Your task to perform on an android device: View the shopping cart on ebay.com. Search for asus zenbook on ebay.com, select the first entry, add it to the cart, then select checkout. Image 0: 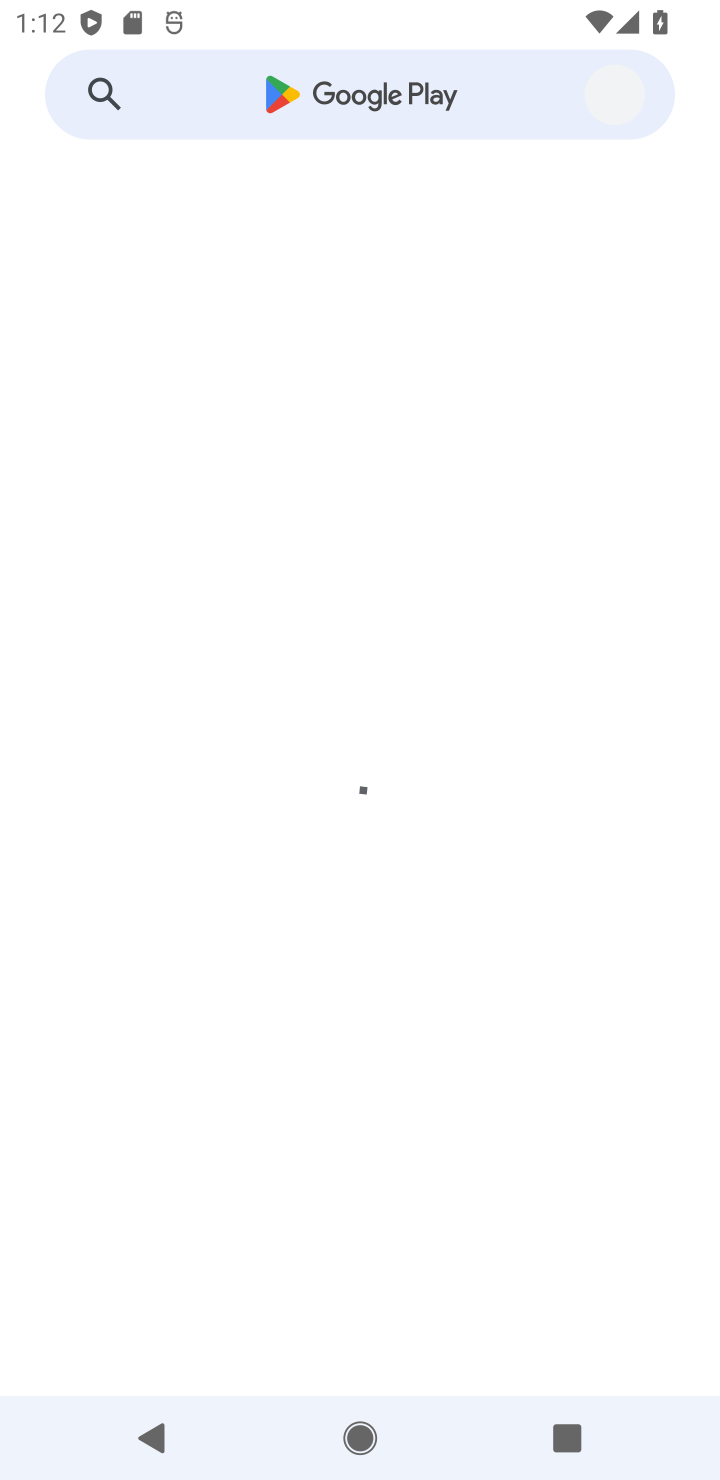
Step 0: press home button
Your task to perform on an android device: View the shopping cart on ebay.com. Search for asus zenbook on ebay.com, select the first entry, add it to the cart, then select checkout. Image 1: 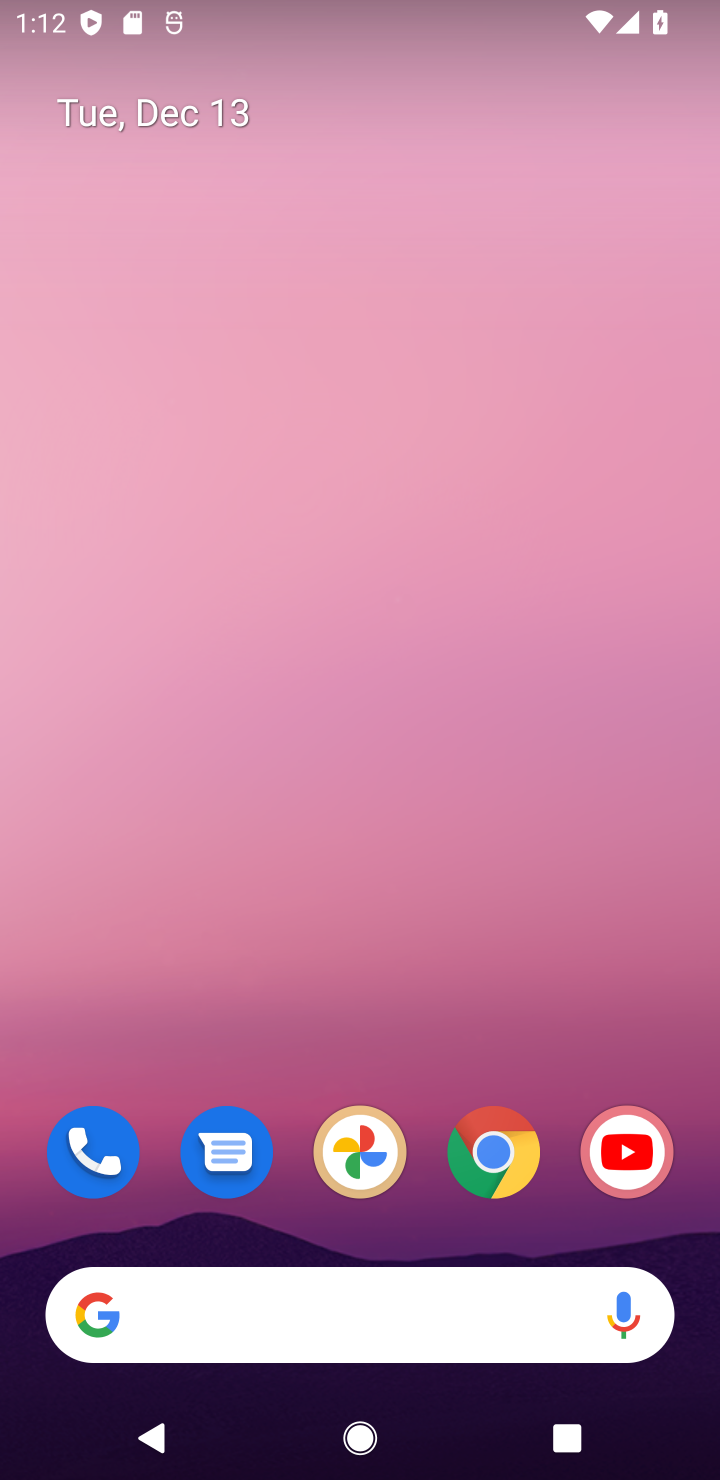
Step 1: drag from (424, 1284) to (424, 325)
Your task to perform on an android device: View the shopping cart on ebay.com. Search for asus zenbook on ebay.com, select the first entry, add it to the cart, then select checkout. Image 2: 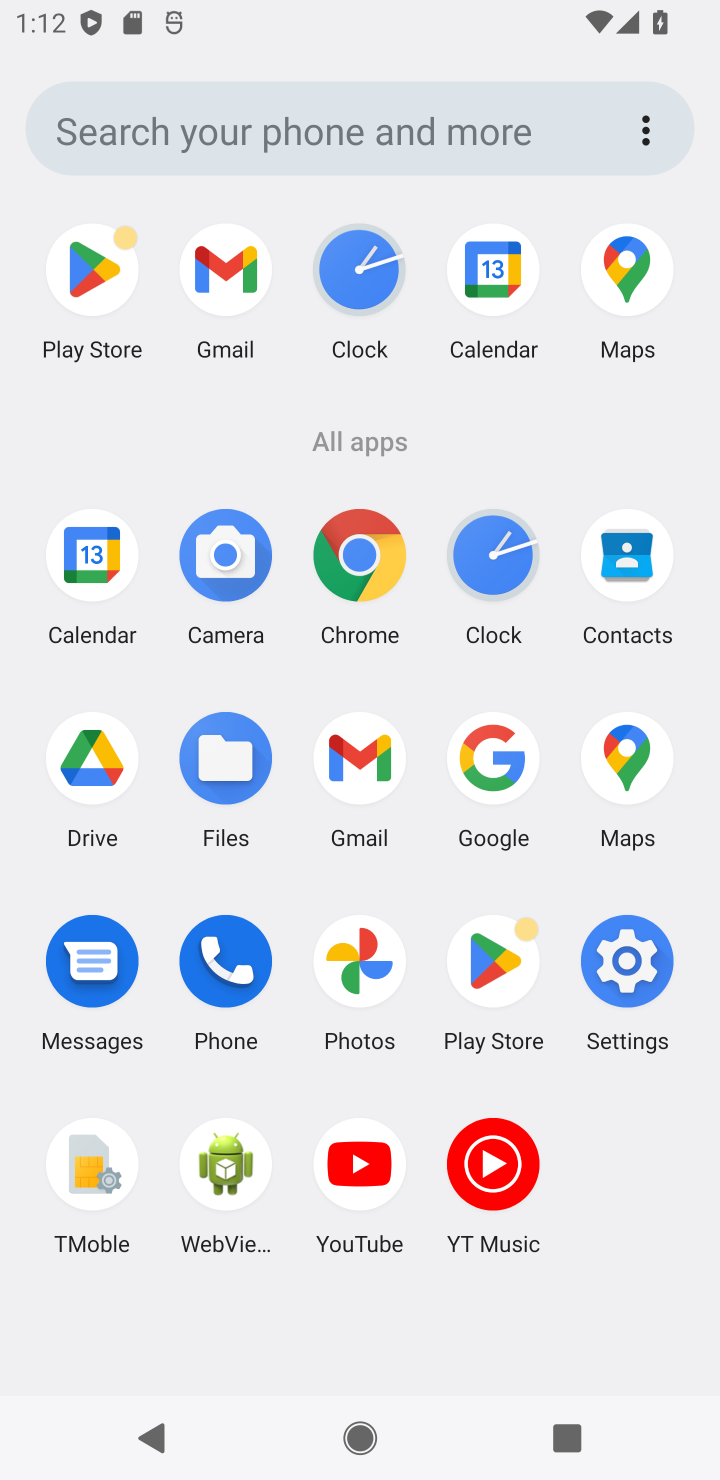
Step 2: click (473, 766)
Your task to perform on an android device: View the shopping cart on ebay.com. Search for asus zenbook on ebay.com, select the first entry, add it to the cart, then select checkout. Image 3: 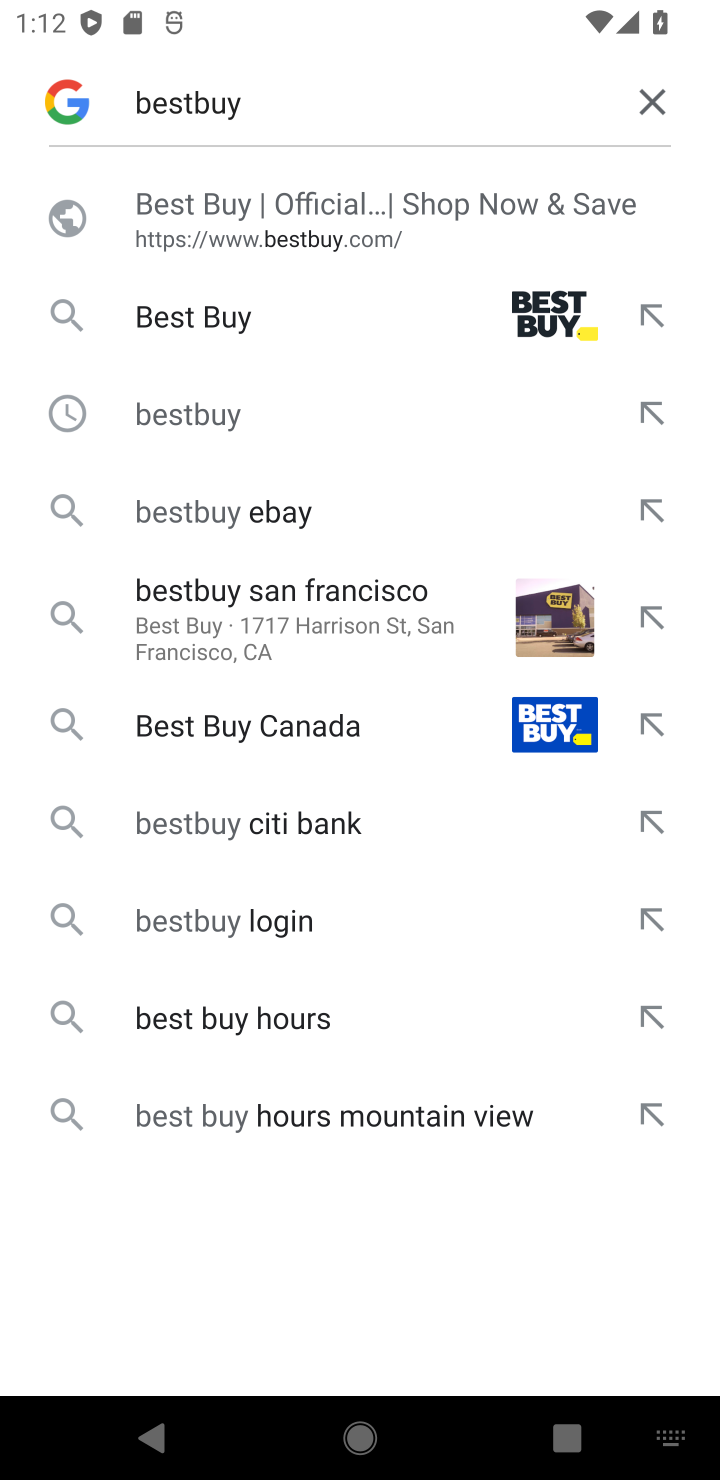
Step 3: click (648, 122)
Your task to perform on an android device: View the shopping cart on ebay.com. Search for asus zenbook on ebay.com, select the first entry, add it to the cart, then select checkout. Image 4: 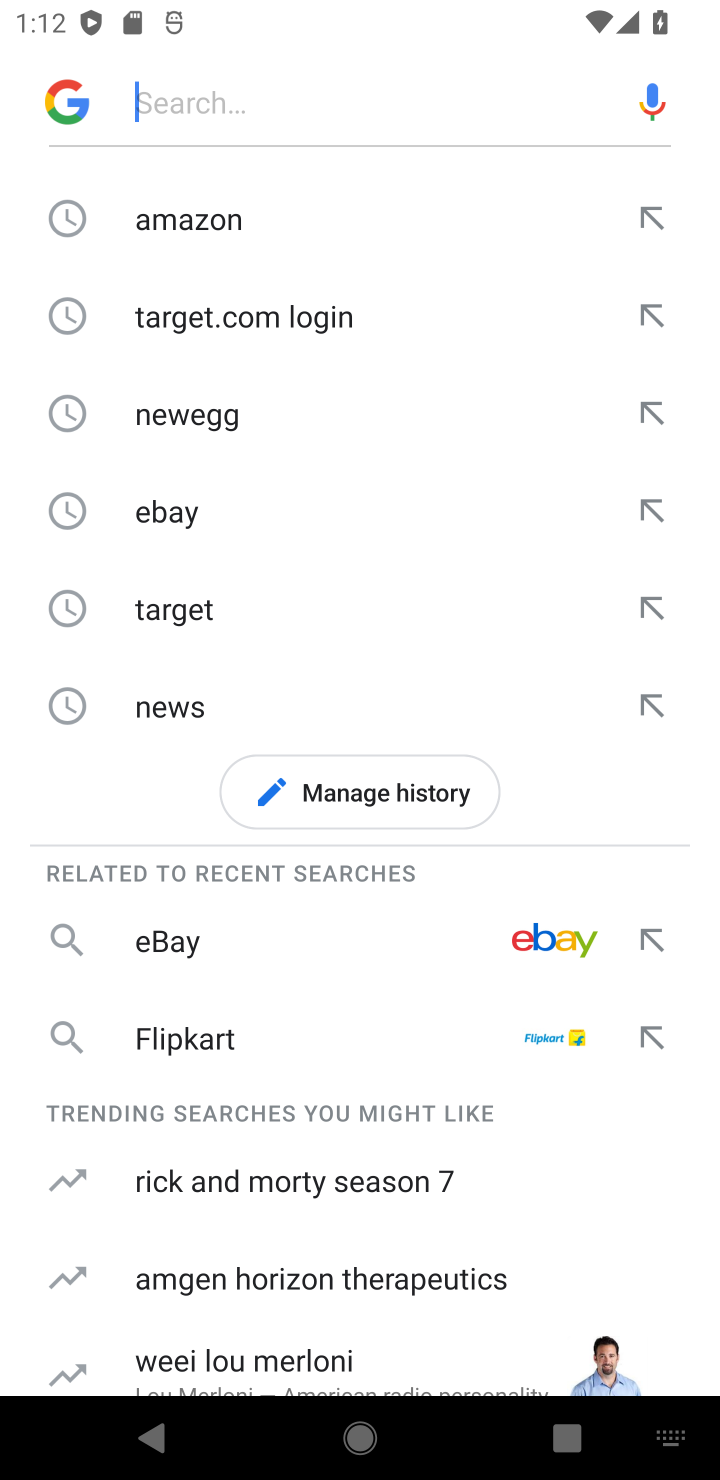
Step 4: click (152, 514)
Your task to perform on an android device: View the shopping cart on ebay.com. Search for asus zenbook on ebay.com, select the first entry, add it to the cart, then select checkout. Image 5: 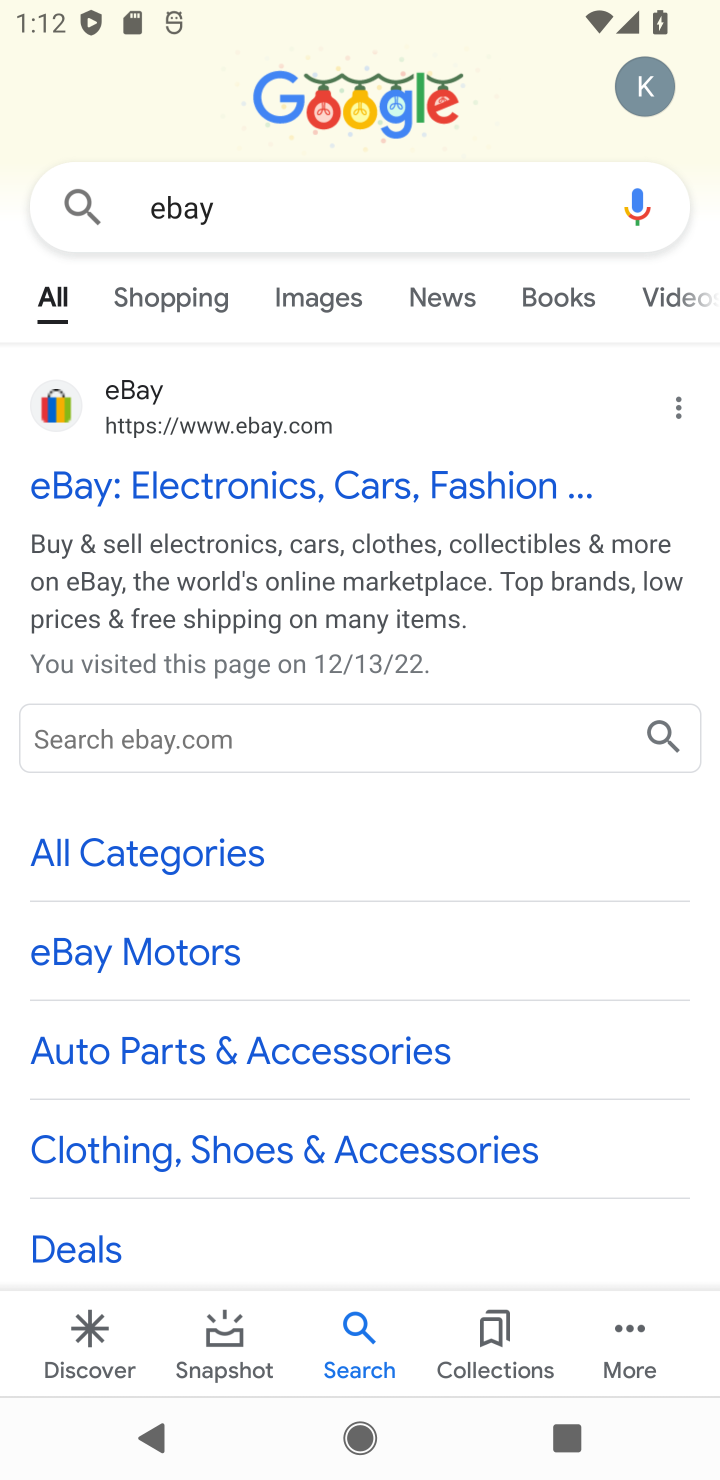
Step 5: click (266, 492)
Your task to perform on an android device: View the shopping cart on ebay.com. Search for asus zenbook on ebay.com, select the first entry, add it to the cart, then select checkout. Image 6: 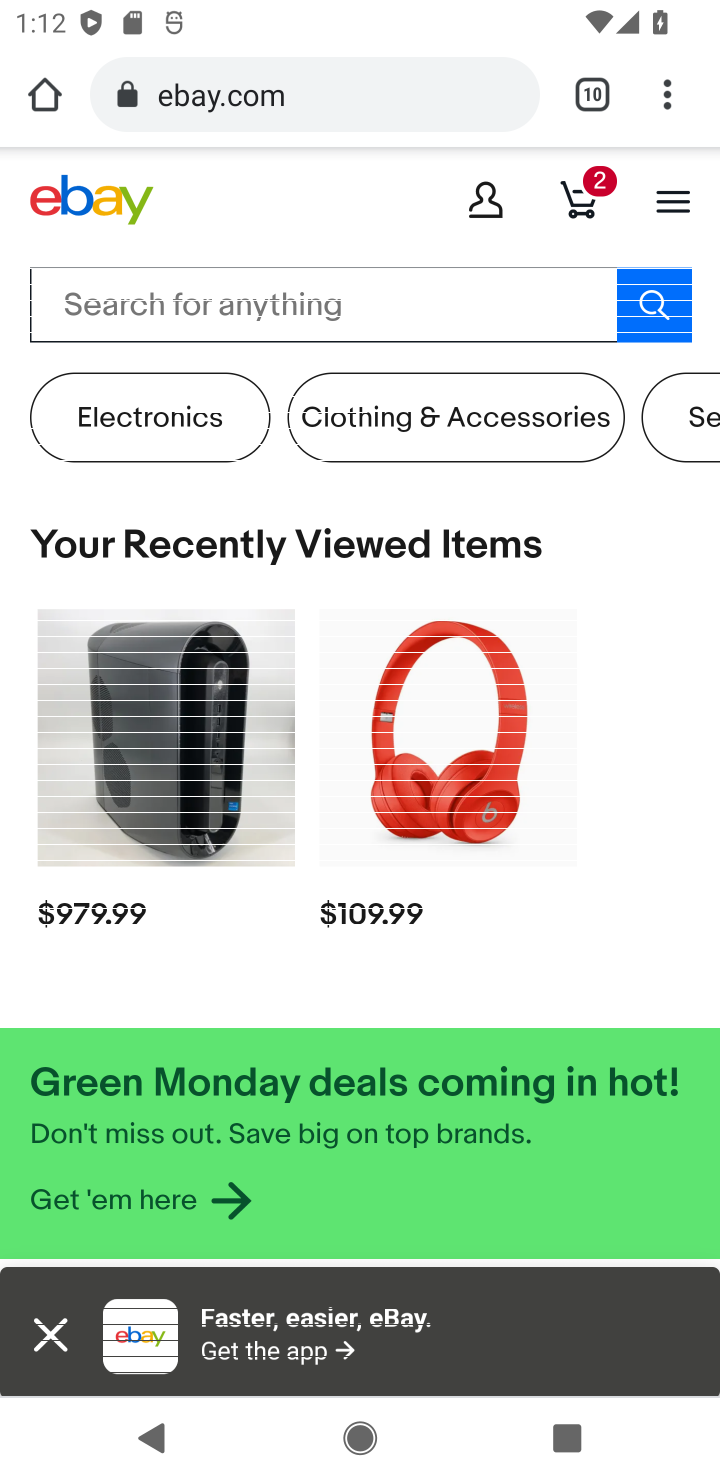
Step 6: click (579, 186)
Your task to perform on an android device: View the shopping cart on ebay.com. Search for asus zenbook on ebay.com, select the first entry, add it to the cart, then select checkout. Image 7: 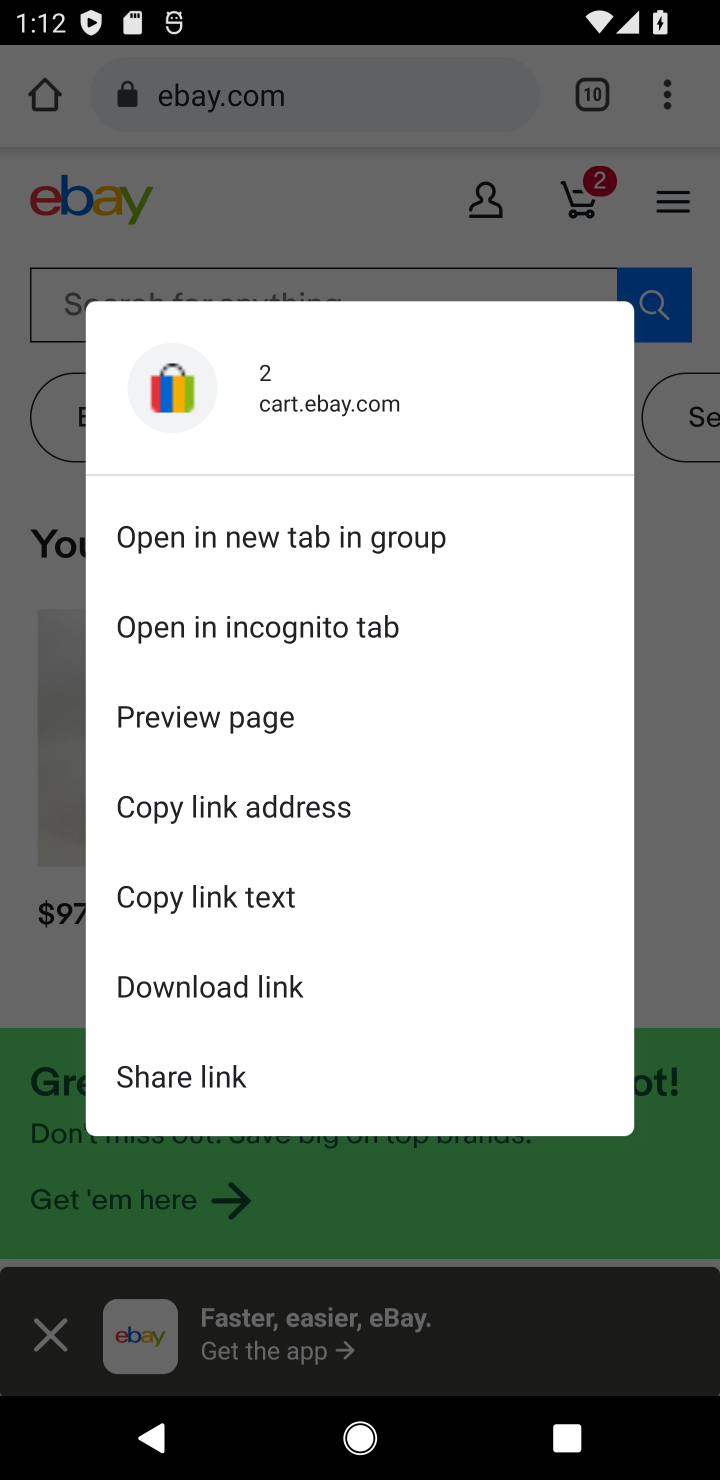
Step 7: click (644, 617)
Your task to perform on an android device: View the shopping cart on ebay.com. Search for asus zenbook on ebay.com, select the first entry, add it to the cart, then select checkout. Image 8: 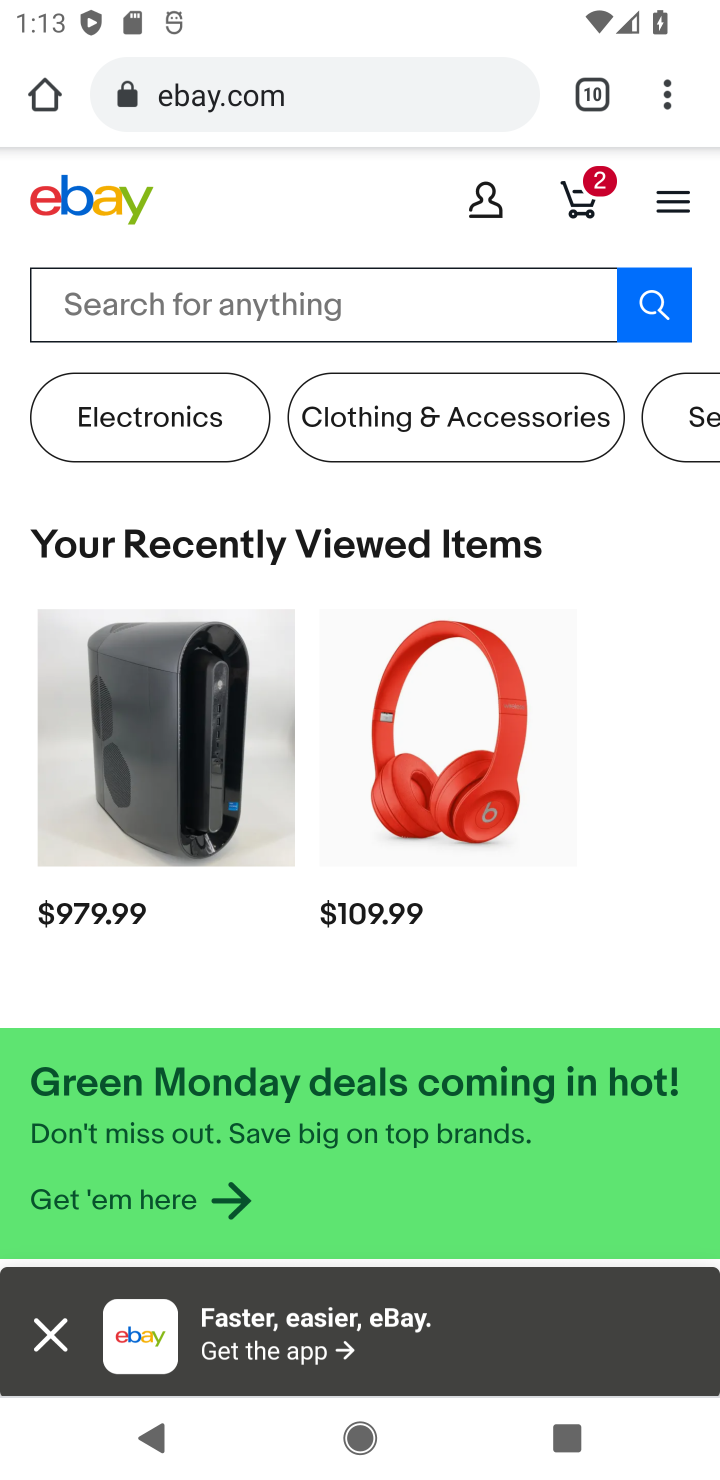
Step 8: click (175, 289)
Your task to perform on an android device: View the shopping cart on ebay.com. Search for asus zenbook on ebay.com, select the first entry, add it to the cart, then select checkout. Image 9: 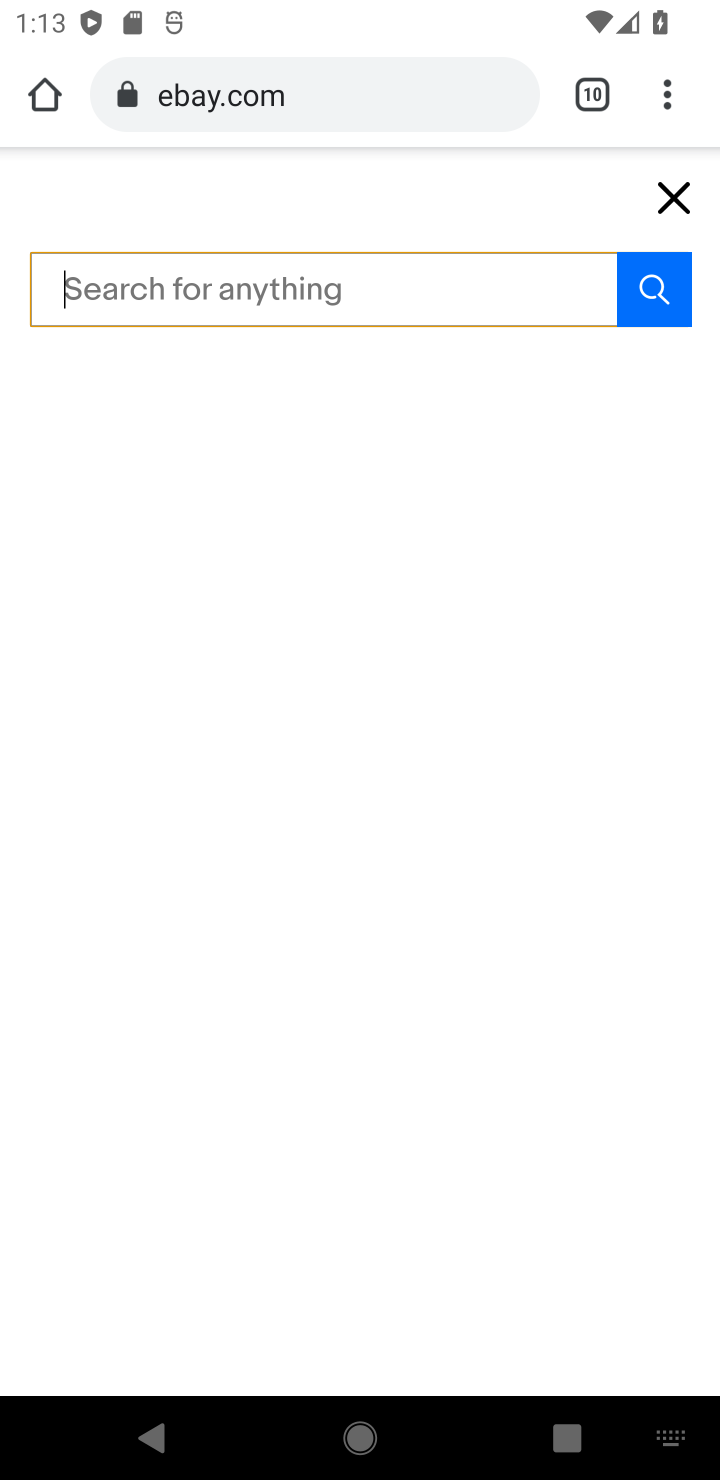
Step 9: type "asus zenbook"
Your task to perform on an android device: View the shopping cart on ebay.com. Search for asus zenbook on ebay.com, select the first entry, add it to the cart, then select checkout. Image 10: 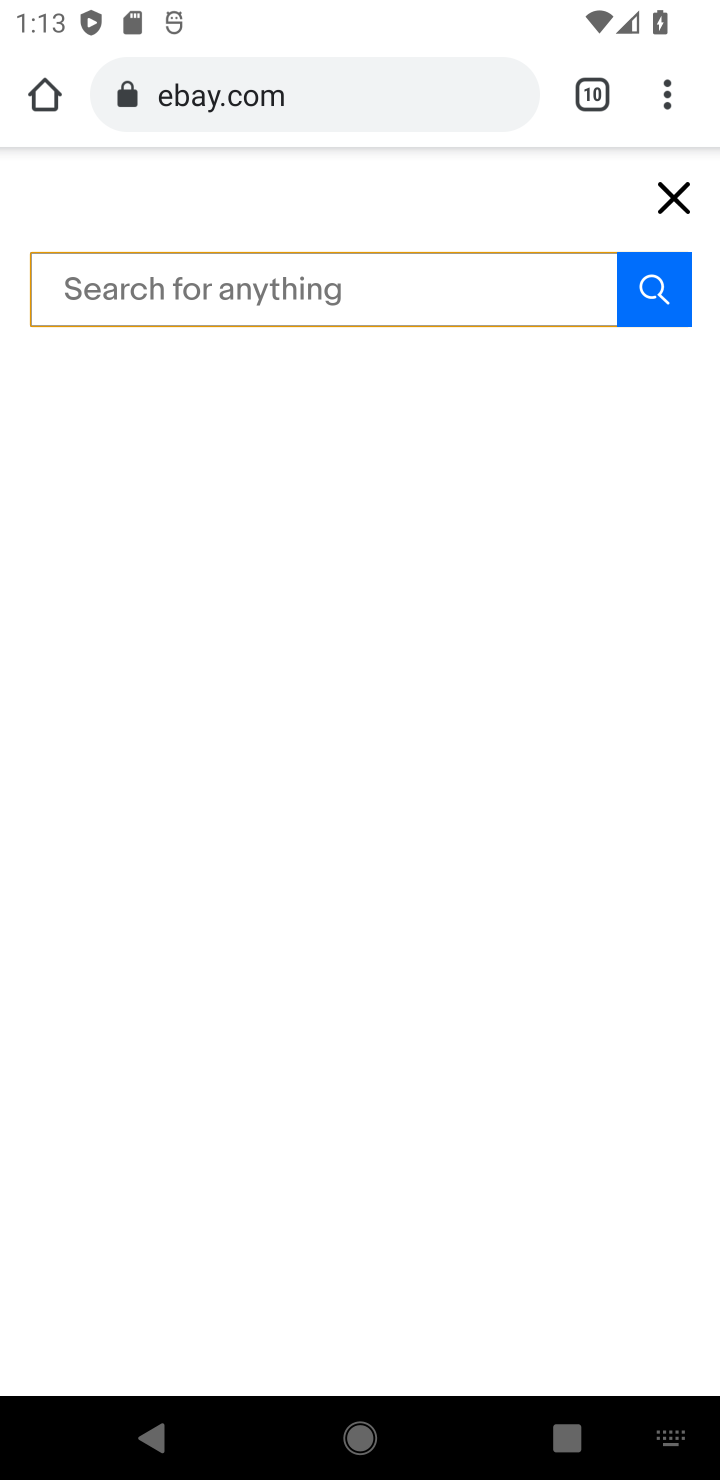
Step 10: click (624, 270)
Your task to perform on an android device: View the shopping cart on ebay.com. Search for asus zenbook on ebay.com, select the first entry, add it to the cart, then select checkout. Image 11: 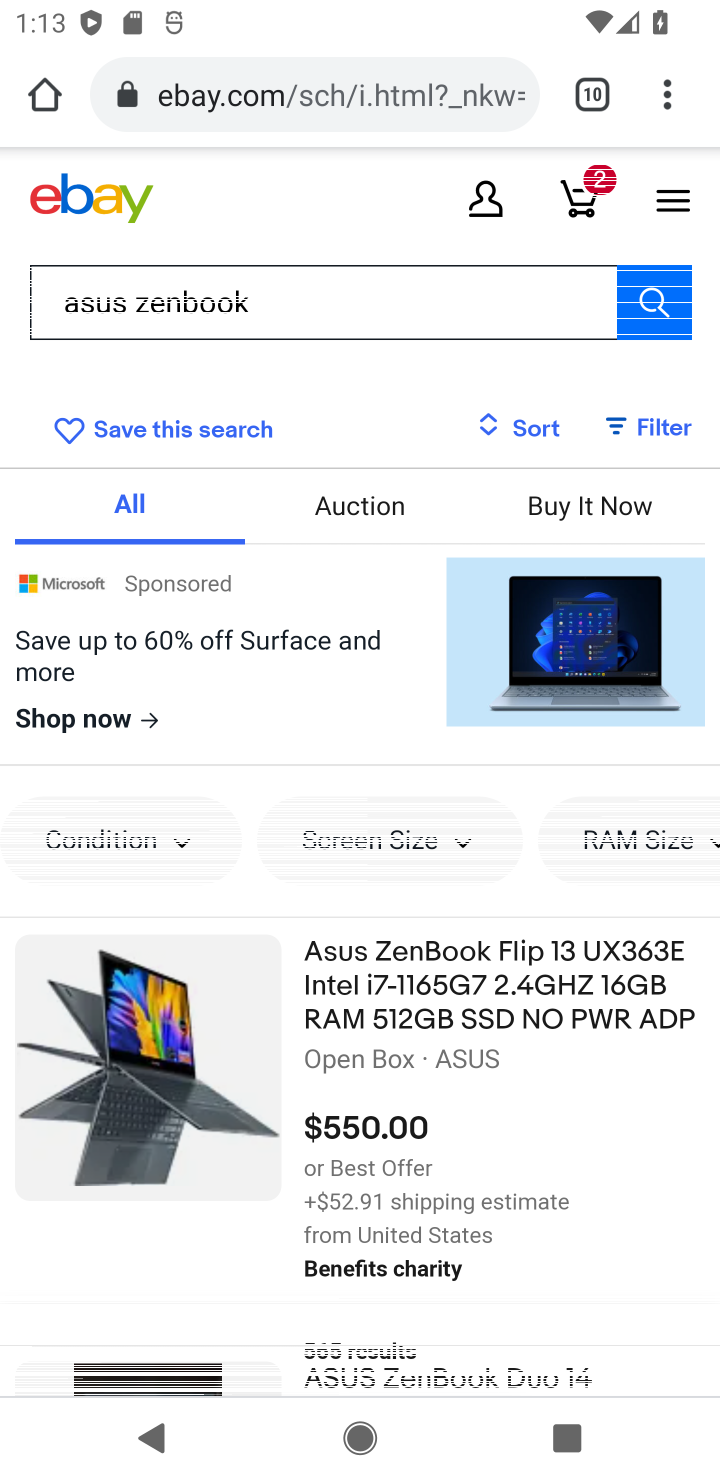
Step 11: drag from (529, 1254) to (490, 471)
Your task to perform on an android device: View the shopping cart on ebay.com. Search for asus zenbook on ebay.com, select the first entry, add it to the cart, then select checkout. Image 12: 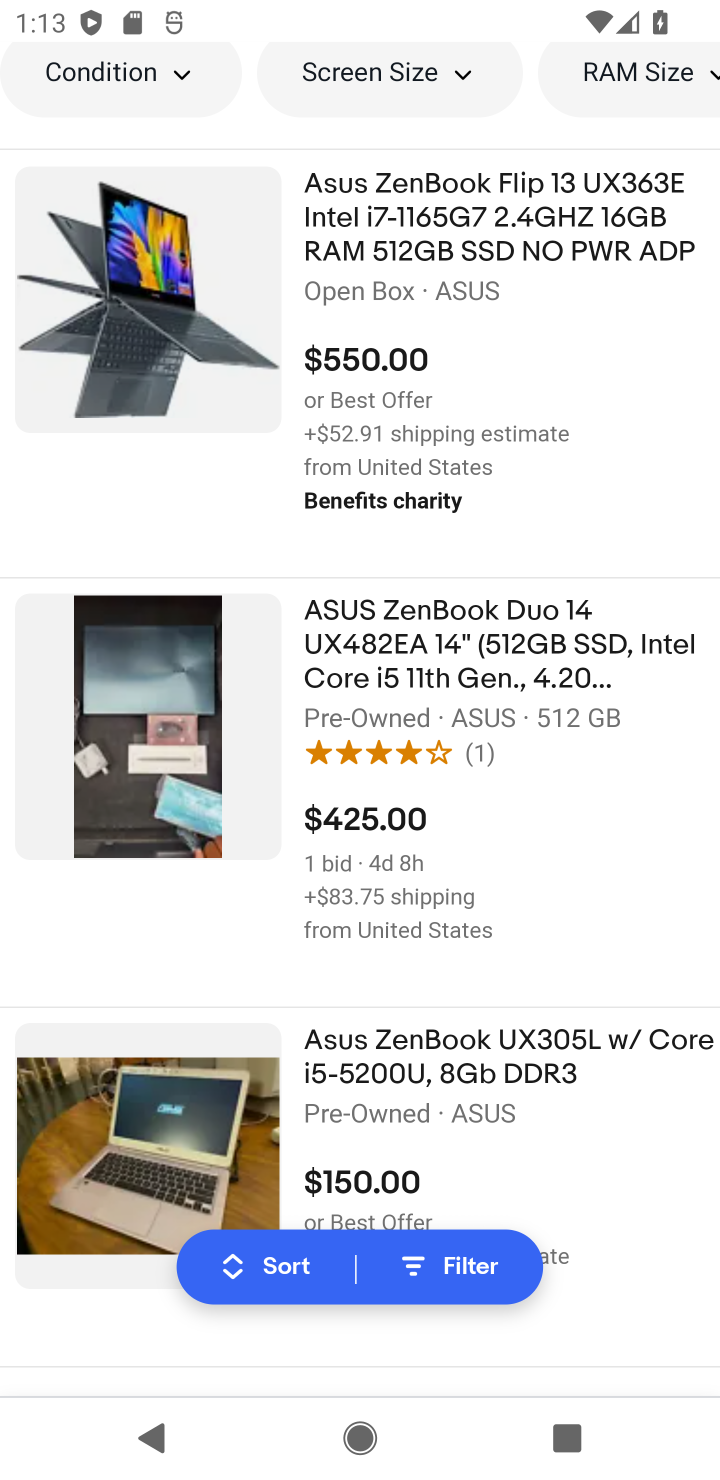
Step 12: click (400, 202)
Your task to perform on an android device: View the shopping cart on ebay.com. Search for asus zenbook on ebay.com, select the first entry, add it to the cart, then select checkout. Image 13: 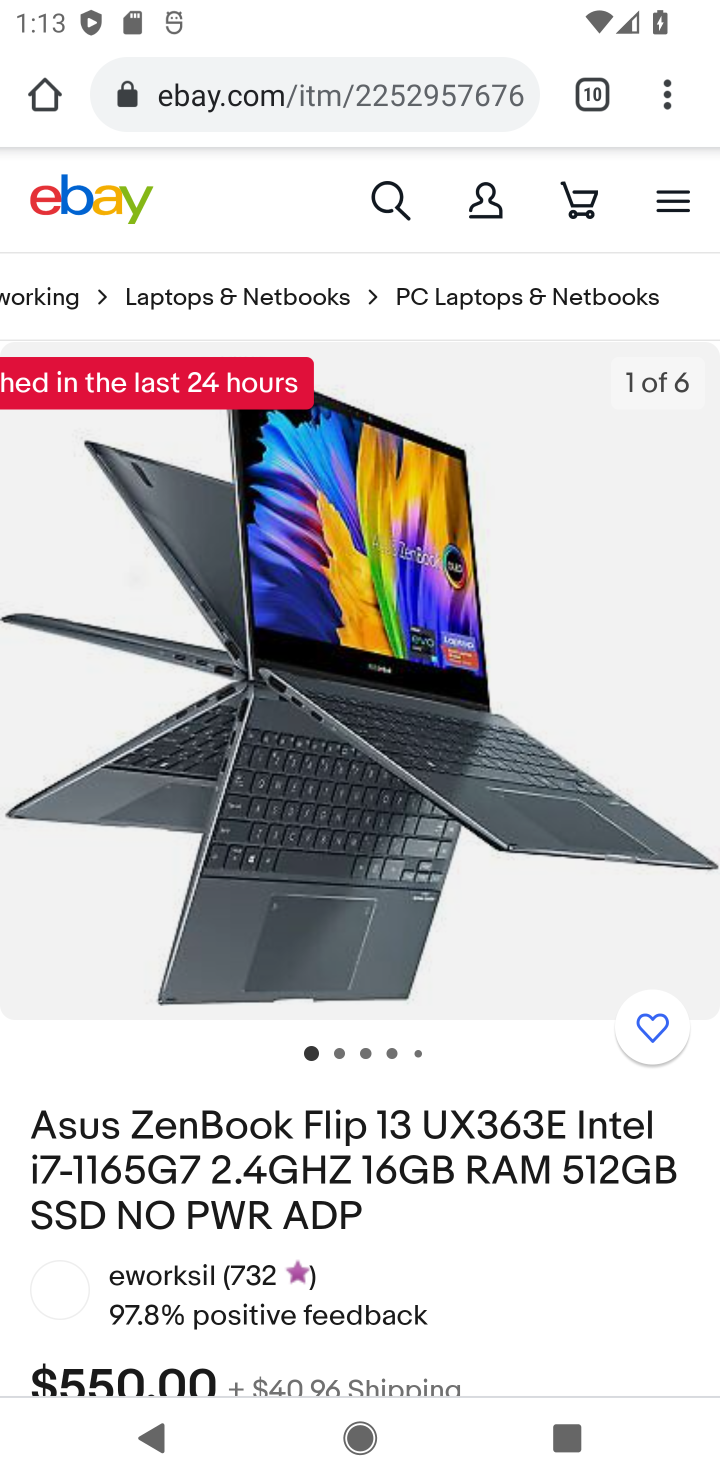
Step 13: drag from (611, 1046) to (616, 341)
Your task to perform on an android device: View the shopping cart on ebay.com. Search for asus zenbook on ebay.com, select the first entry, add it to the cart, then select checkout. Image 14: 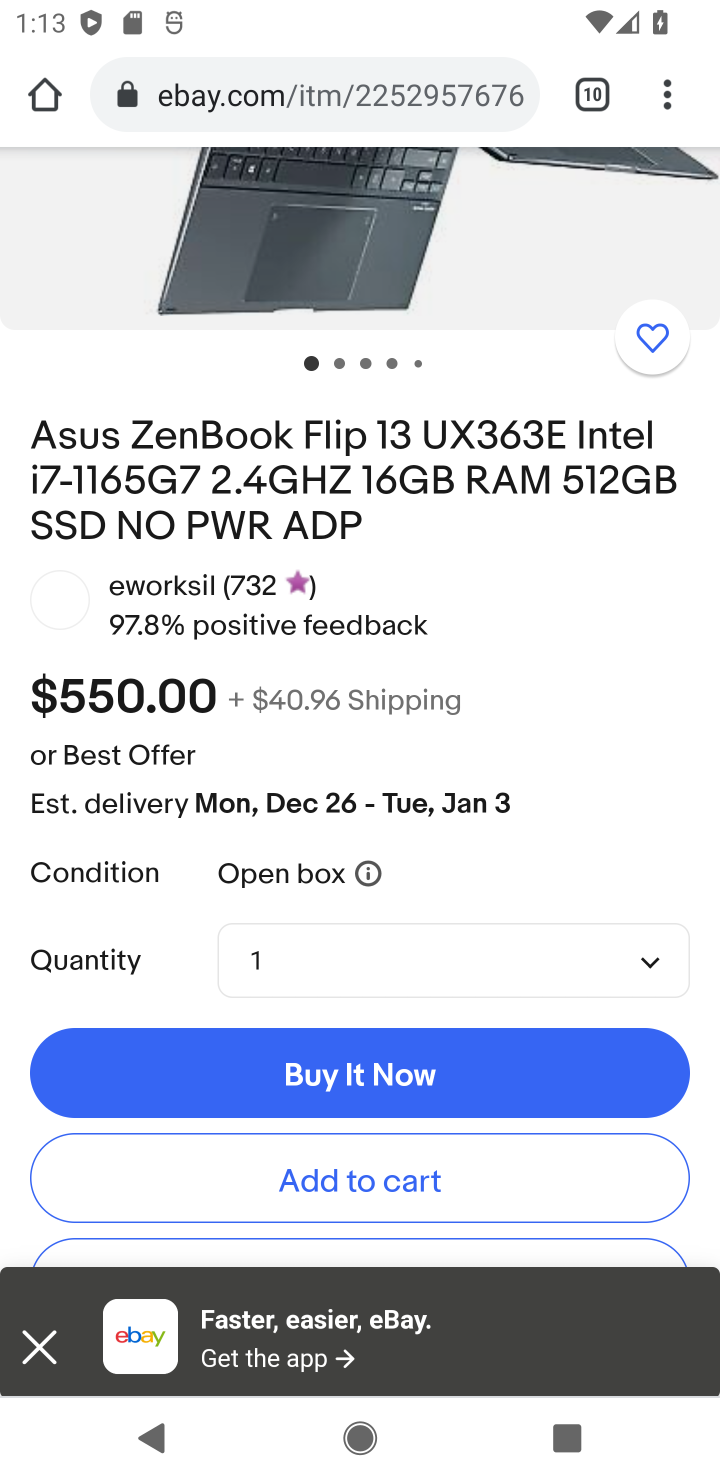
Step 14: click (353, 1172)
Your task to perform on an android device: View the shopping cart on ebay.com. Search for asus zenbook on ebay.com, select the first entry, add it to the cart, then select checkout. Image 15: 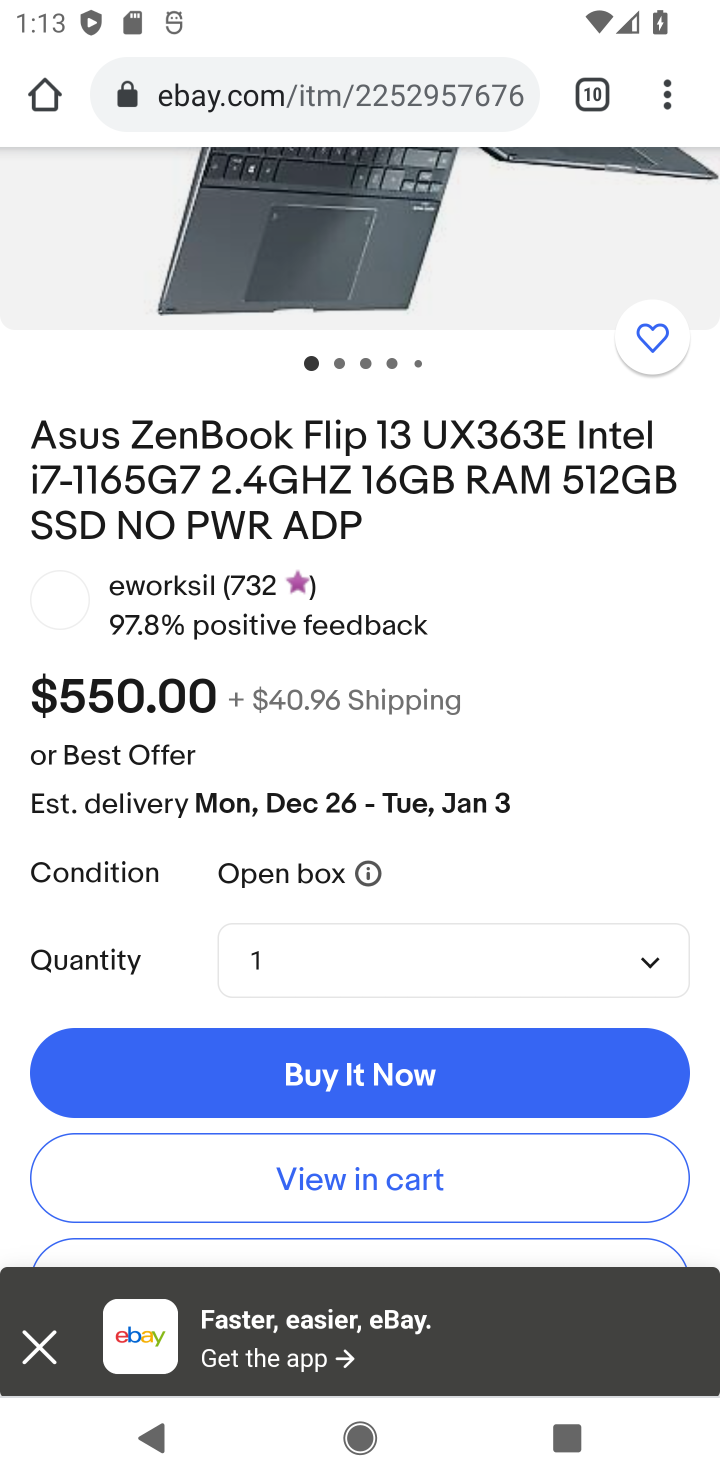
Step 15: click (353, 1172)
Your task to perform on an android device: View the shopping cart on ebay.com. Search for asus zenbook on ebay.com, select the first entry, add it to the cart, then select checkout. Image 16: 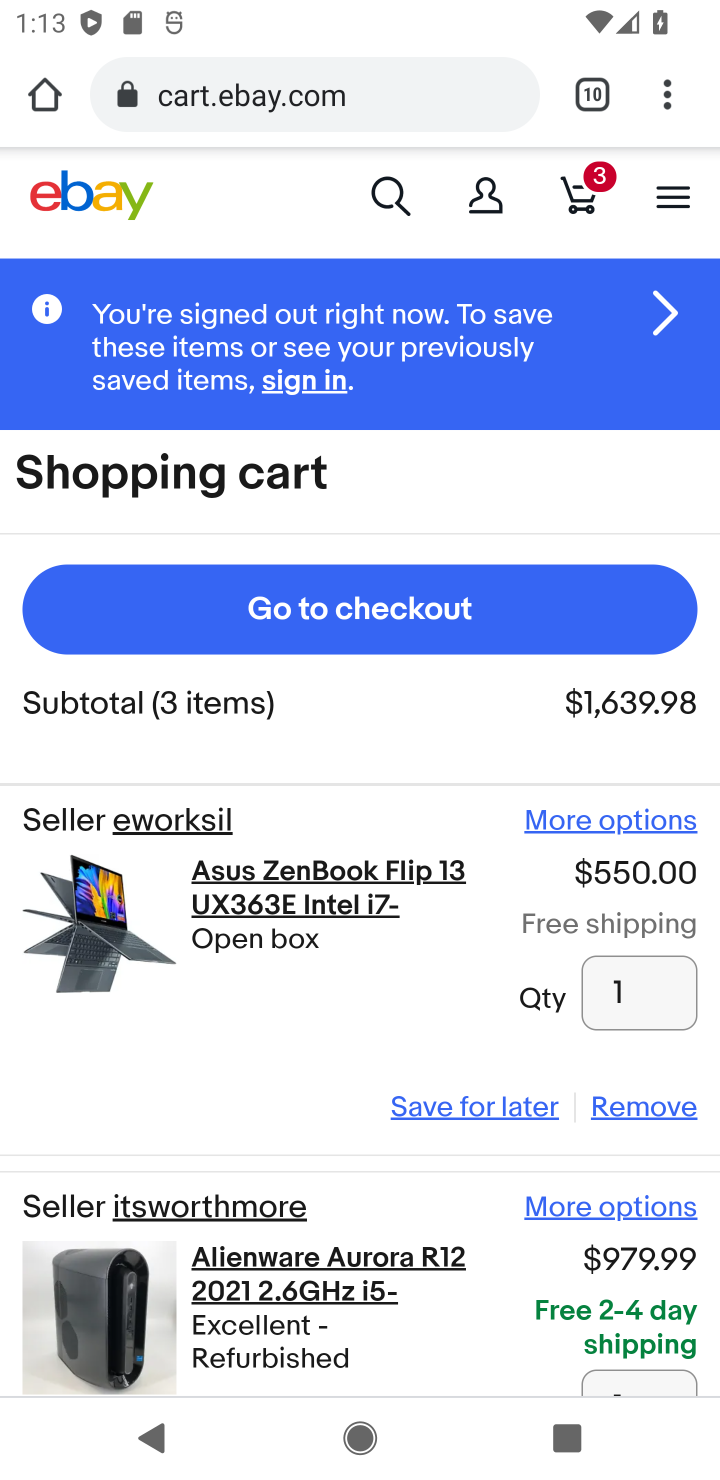
Step 16: click (351, 610)
Your task to perform on an android device: View the shopping cart on ebay.com. Search for asus zenbook on ebay.com, select the first entry, add it to the cart, then select checkout. Image 17: 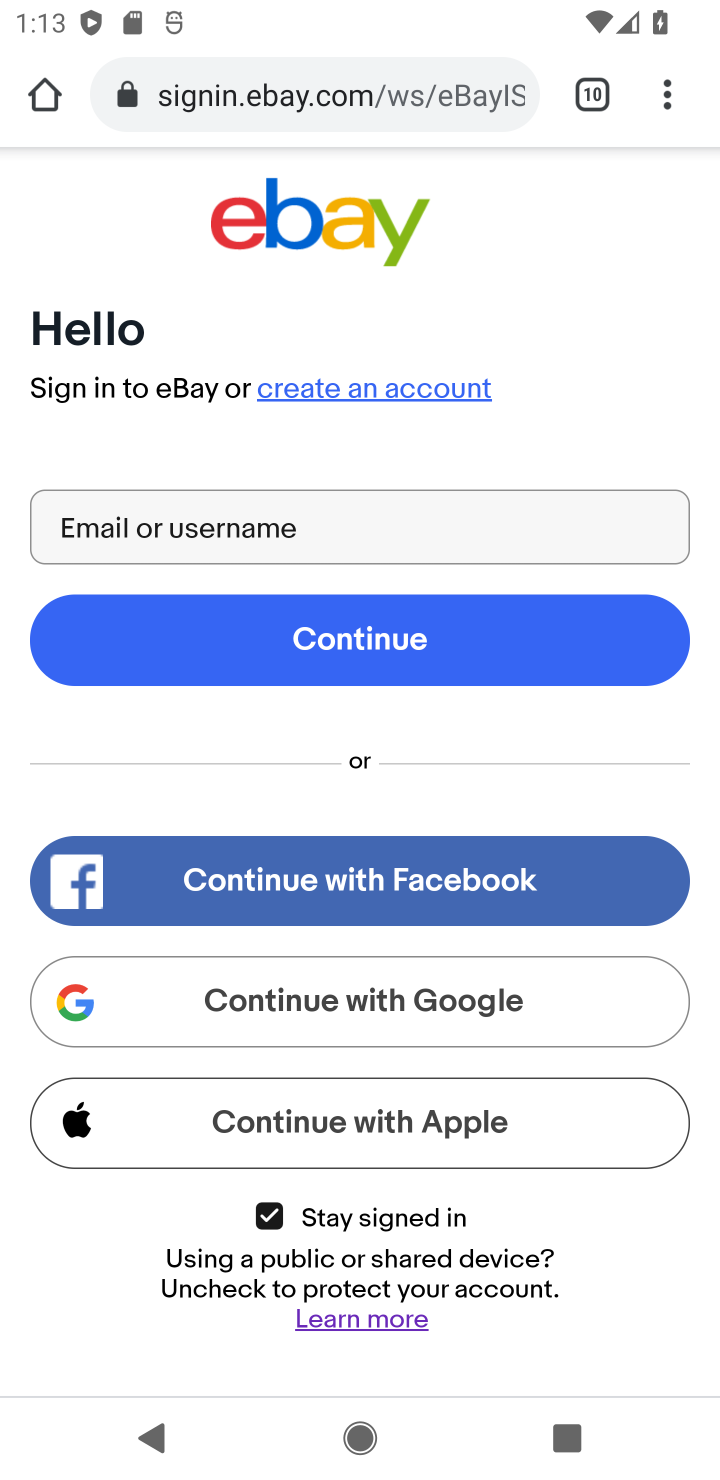
Step 17: task complete